Your task to perform on an android device: Open privacy settings Image 0: 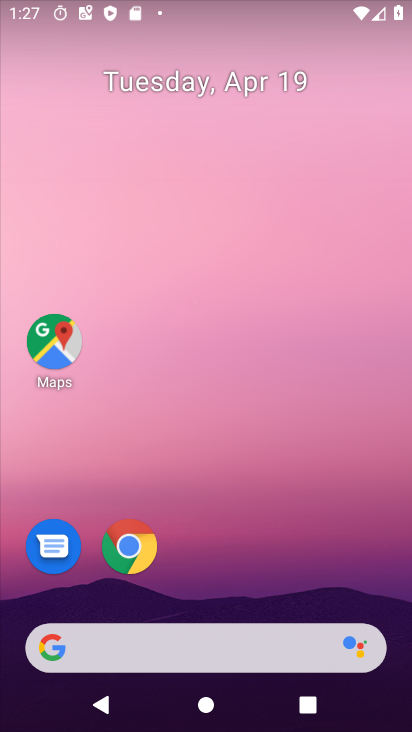
Step 0: drag from (214, 449) to (279, 84)
Your task to perform on an android device: Open privacy settings Image 1: 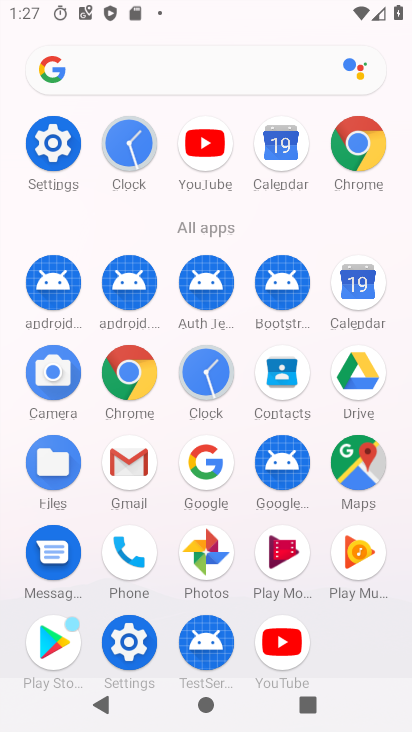
Step 1: click (46, 135)
Your task to perform on an android device: Open privacy settings Image 2: 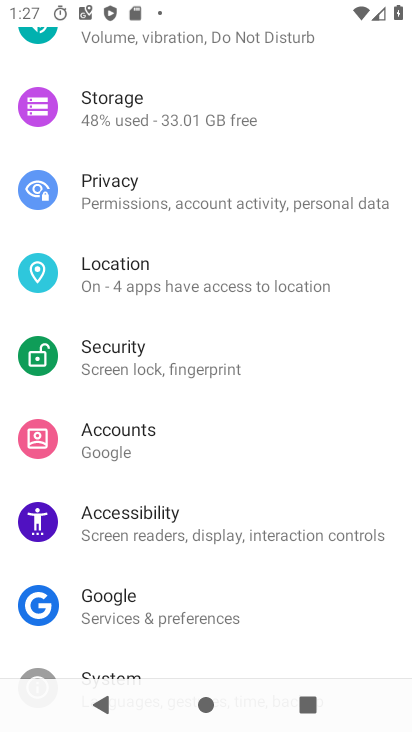
Step 2: click (134, 184)
Your task to perform on an android device: Open privacy settings Image 3: 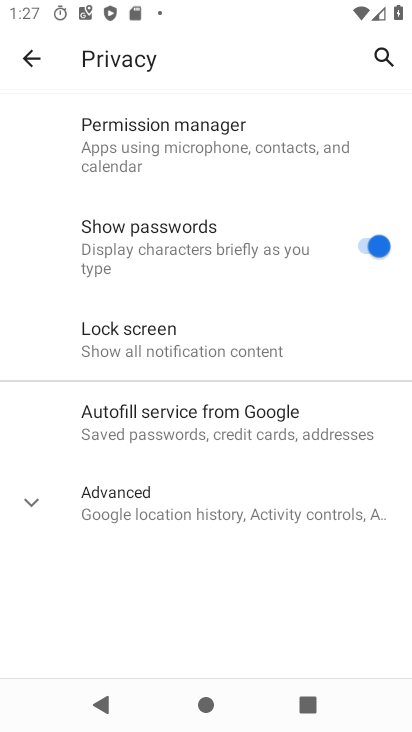
Step 3: task complete